Your task to perform on an android device: Turn off the flashlight Image 0: 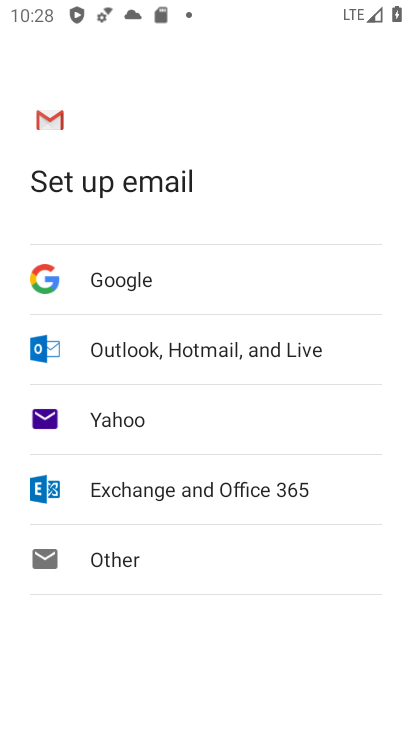
Step 0: press home button
Your task to perform on an android device: Turn off the flashlight Image 1: 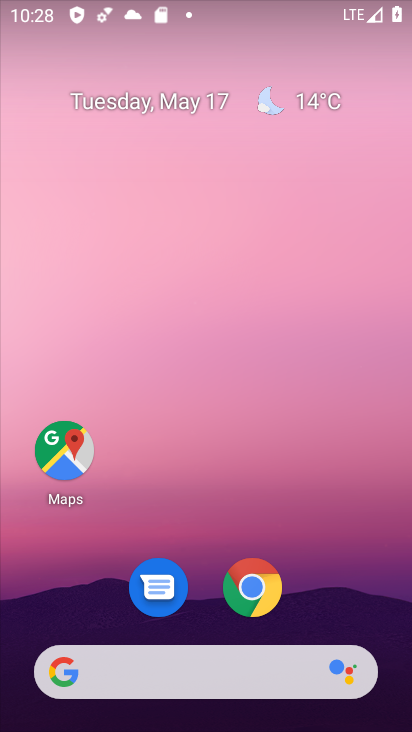
Step 1: drag from (306, 581) to (300, 68)
Your task to perform on an android device: Turn off the flashlight Image 2: 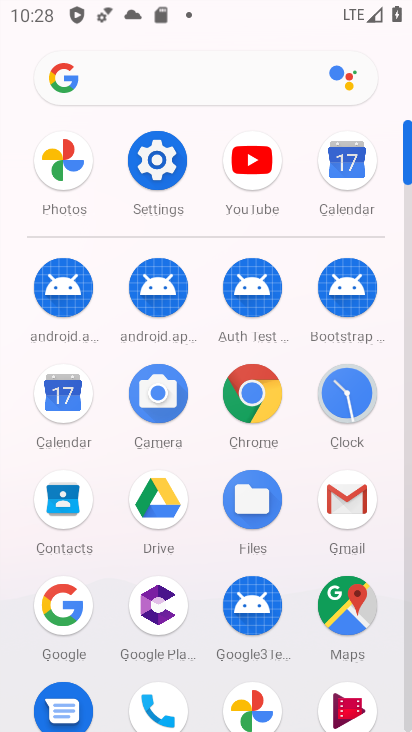
Step 2: click (157, 167)
Your task to perform on an android device: Turn off the flashlight Image 3: 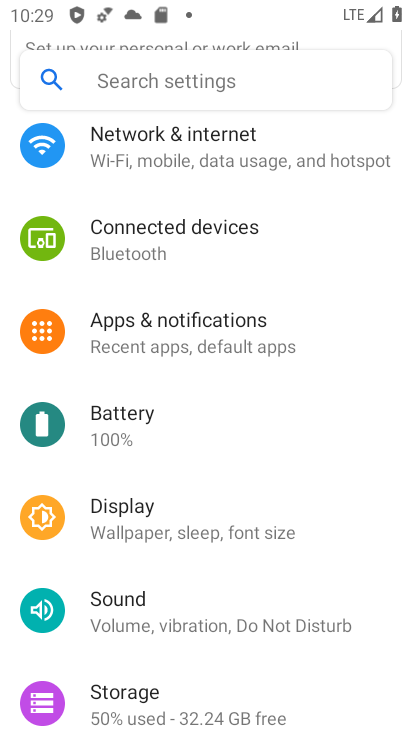
Step 3: click (217, 334)
Your task to perform on an android device: Turn off the flashlight Image 4: 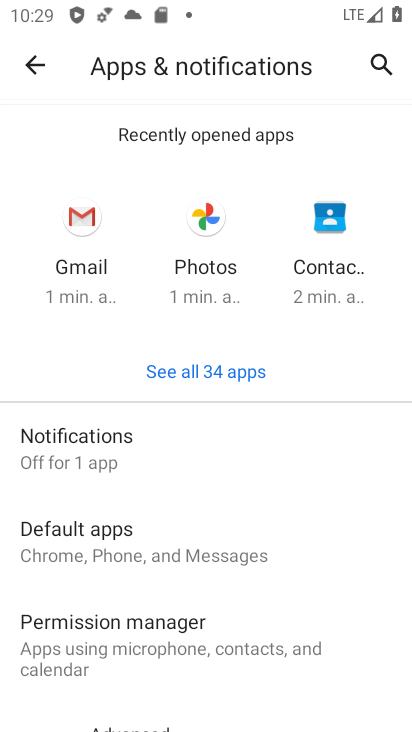
Step 4: drag from (250, 683) to (274, 385)
Your task to perform on an android device: Turn off the flashlight Image 5: 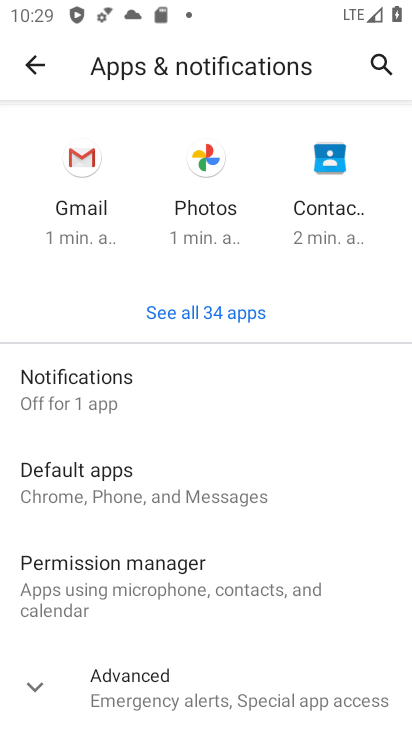
Step 5: click (129, 695)
Your task to perform on an android device: Turn off the flashlight Image 6: 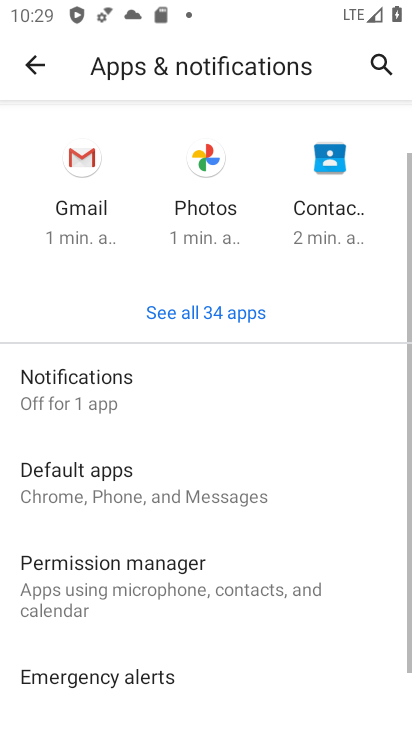
Step 6: drag from (256, 692) to (269, 438)
Your task to perform on an android device: Turn off the flashlight Image 7: 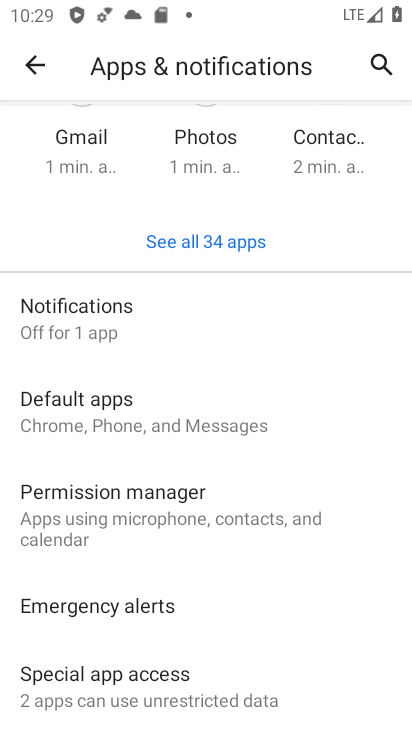
Step 7: click (112, 712)
Your task to perform on an android device: Turn off the flashlight Image 8: 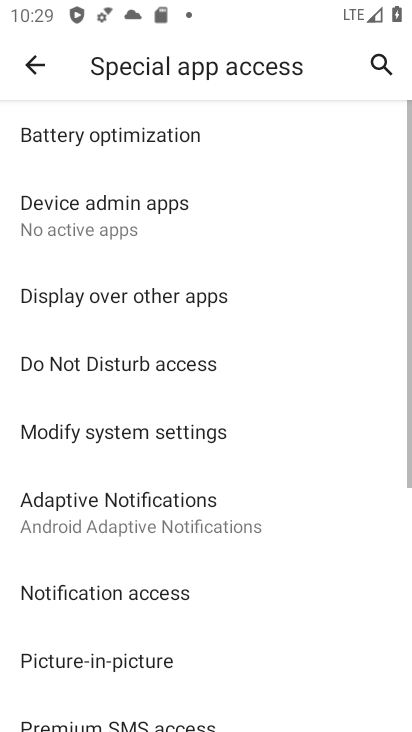
Step 8: click (391, 649)
Your task to perform on an android device: Turn off the flashlight Image 9: 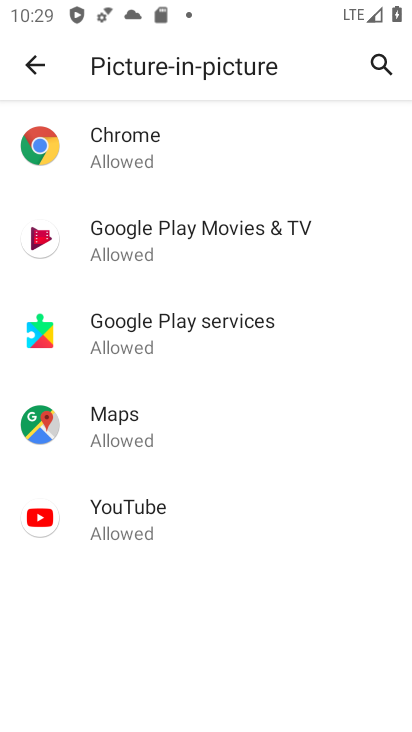
Step 9: task complete